Your task to perform on an android device: Open the web browser Image 0: 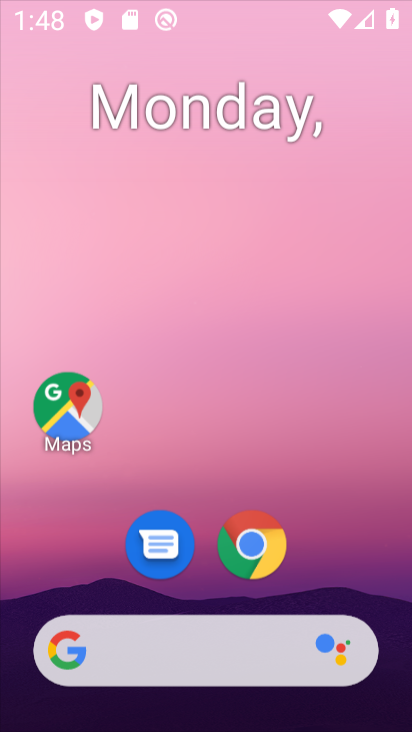
Step 0: click (247, 124)
Your task to perform on an android device: Open the web browser Image 1: 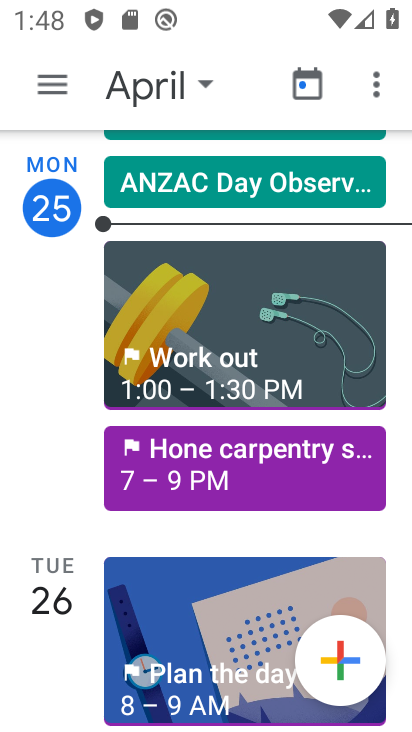
Step 1: press back button
Your task to perform on an android device: Open the web browser Image 2: 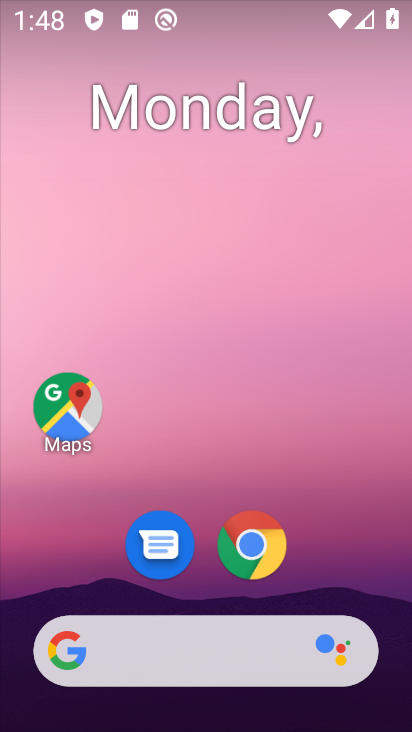
Step 2: click (246, 548)
Your task to perform on an android device: Open the web browser Image 3: 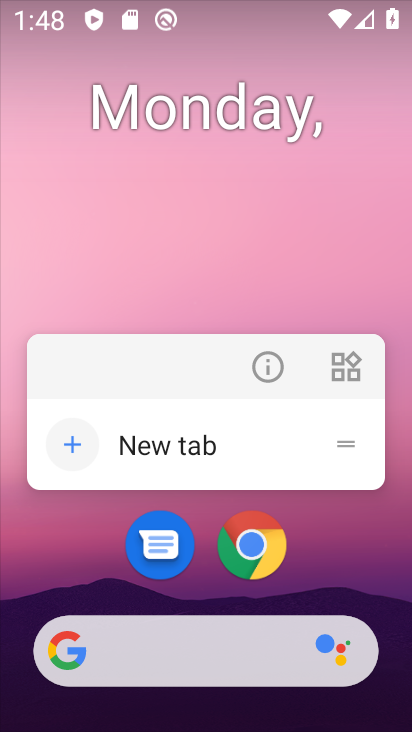
Step 3: click (248, 550)
Your task to perform on an android device: Open the web browser Image 4: 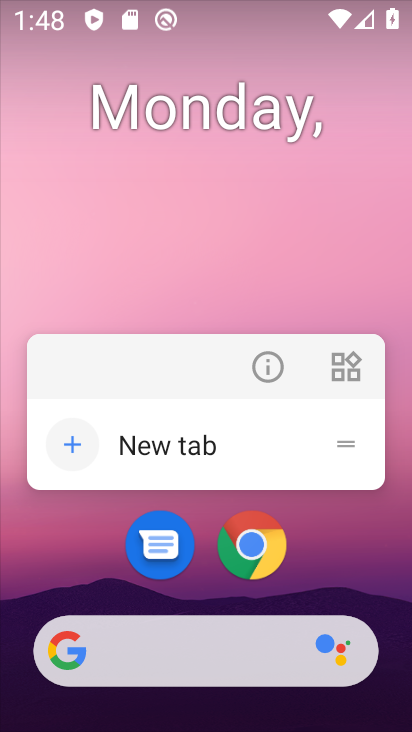
Step 4: click (263, 546)
Your task to perform on an android device: Open the web browser Image 5: 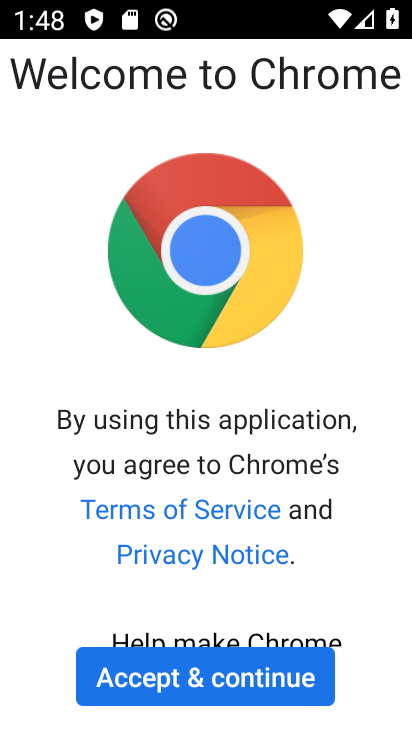
Step 5: click (179, 671)
Your task to perform on an android device: Open the web browser Image 6: 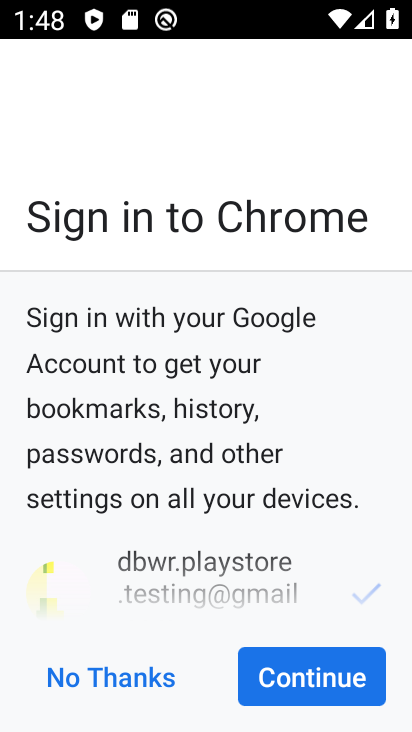
Step 6: click (322, 677)
Your task to perform on an android device: Open the web browser Image 7: 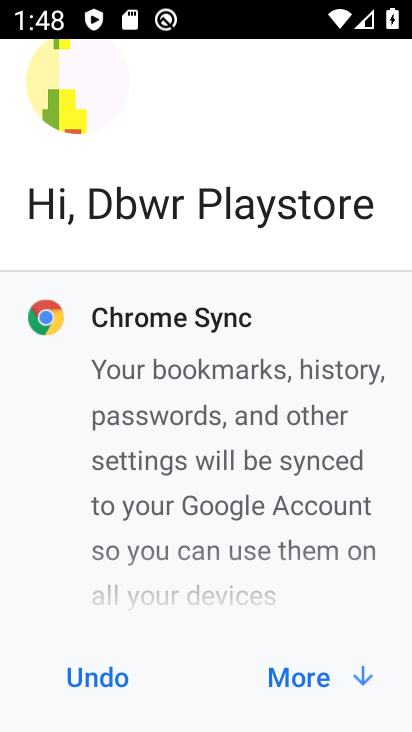
Step 7: click (320, 671)
Your task to perform on an android device: Open the web browser Image 8: 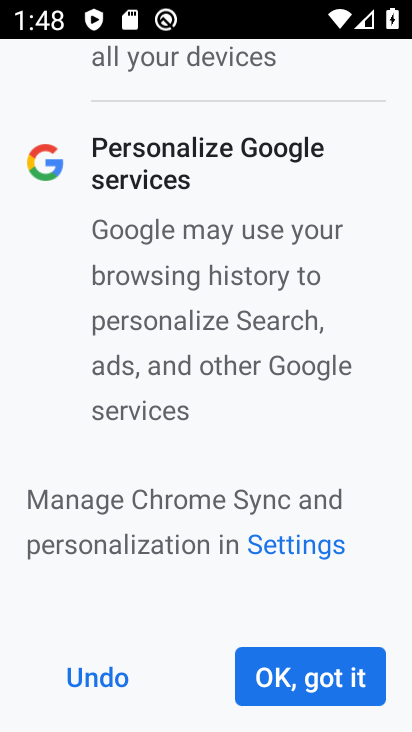
Step 8: click (305, 685)
Your task to perform on an android device: Open the web browser Image 9: 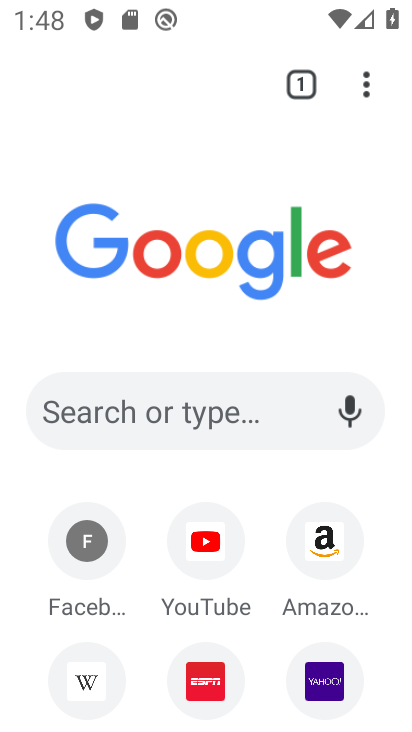
Step 9: task complete